Your task to perform on an android device: Search for vegetarian restaurants on Maps Image 0: 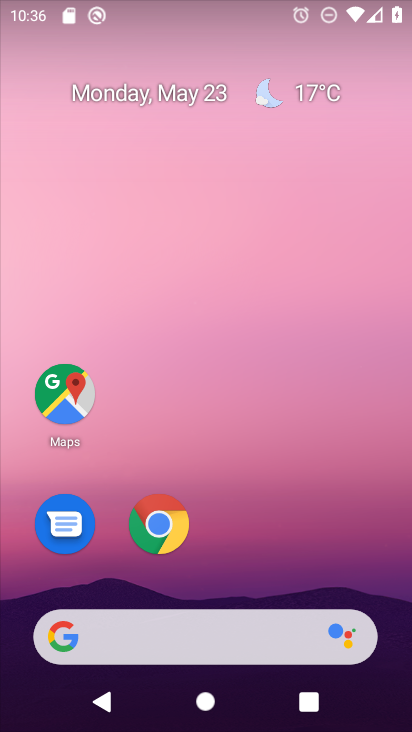
Step 0: click (60, 372)
Your task to perform on an android device: Search for vegetarian restaurants on Maps Image 1: 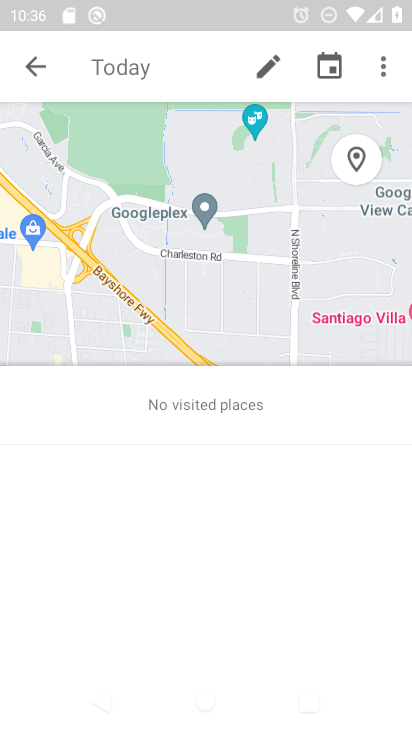
Step 1: click (28, 74)
Your task to perform on an android device: Search for vegetarian restaurants on Maps Image 2: 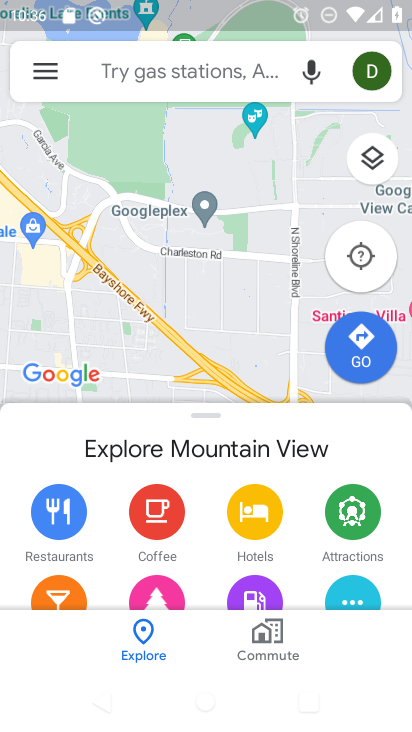
Step 2: click (155, 69)
Your task to perform on an android device: Search for vegetarian restaurants on Maps Image 3: 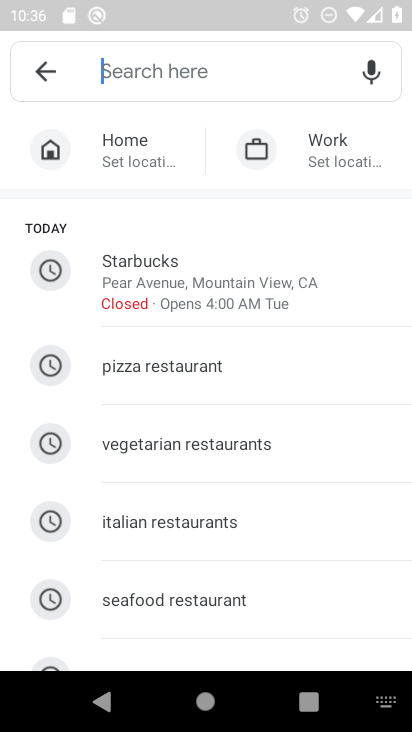
Step 3: click (208, 448)
Your task to perform on an android device: Search for vegetarian restaurants on Maps Image 4: 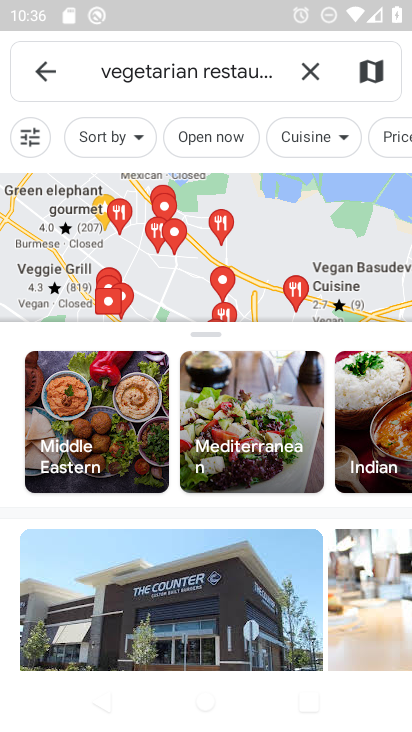
Step 4: task complete